Your task to perform on an android device: Open the phone app and click the voicemail tab. Image 0: 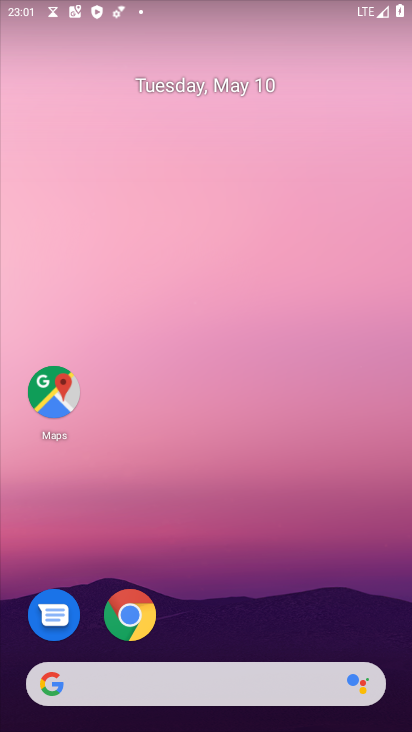
Step 0: drag from (230, 604) to (211, 73)
Your task to perform on an android device: Open the phone app and click the voicemail tab. Image 1: 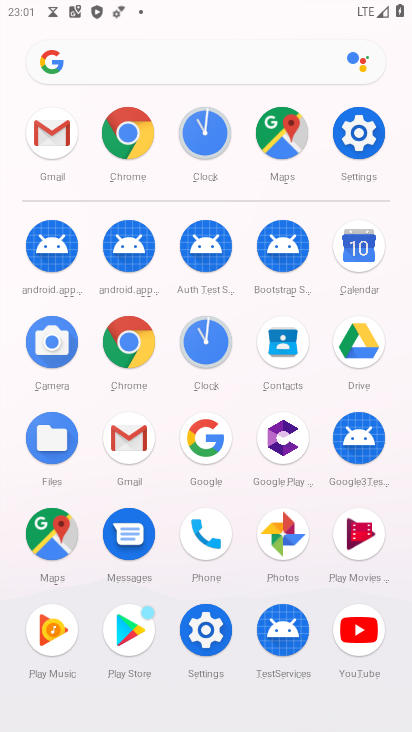
Step 1: click (202, 528)
Your task to perform on an android device: Open the phone app and click the voicemail tab. Image 2: 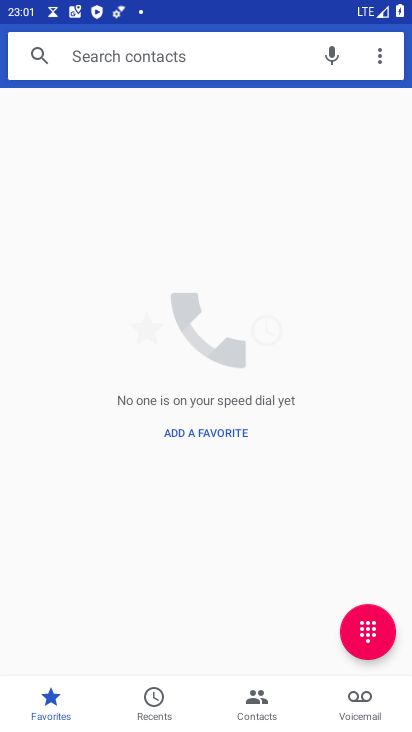
Step 2: click (360, 702)
Your task to perform on an android device: Open the phone app and click the voicemail tab. Image 3: 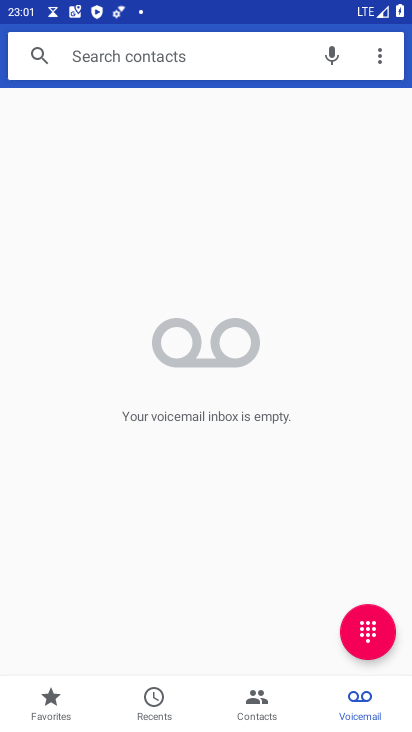
Step 3: task complete